Your task to perform on an android device: Is it going to rain tomorrow? Image 0: 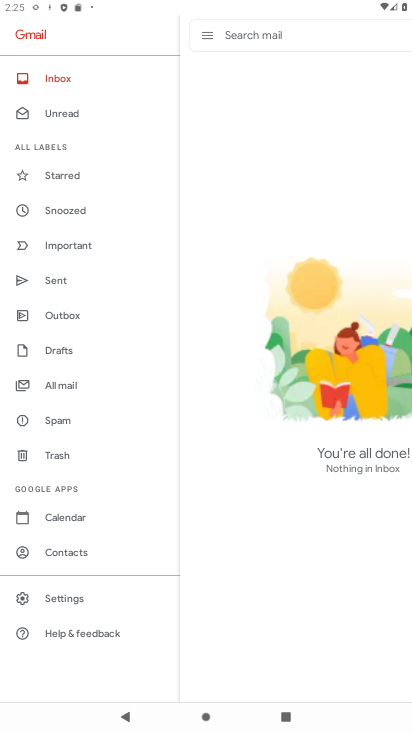
Step 0: press home button
Your task to perform on an android device: Is it going to rain tomorrow? Image 1: 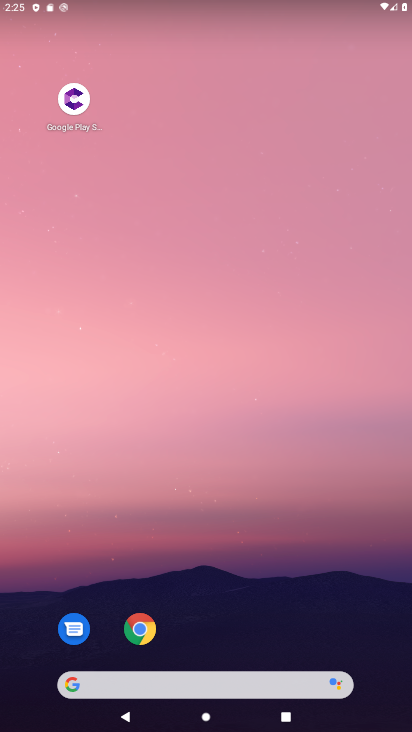
Step 1: drag from (263, 664) to (276, 116)
Your task to perform on an android device: Is it going to rain tomorrow? Image 2: 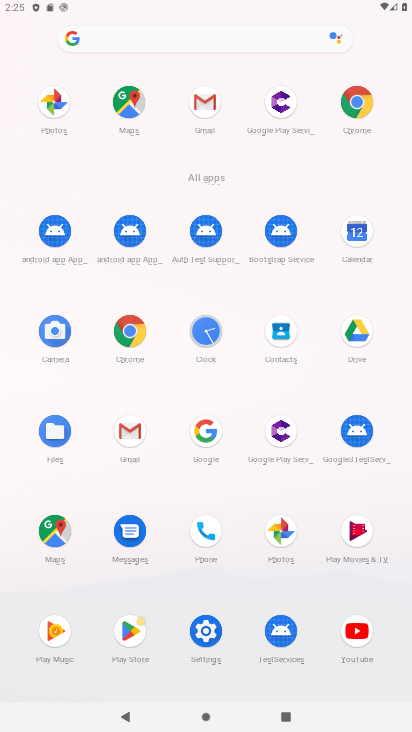
Step 2: click (132, 333)
Your task to perform on an android device: Is it going to rain tomorrow? Image 3: 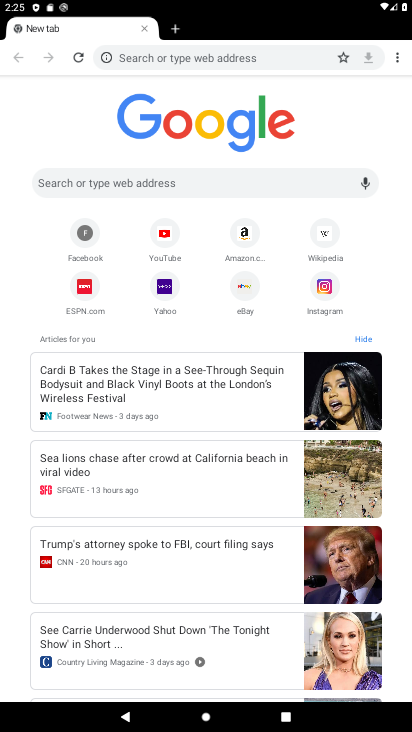
Step 3: click (197, 44)
Your task to perform on an android device: Is it going to rain tomorrow? Image 4: 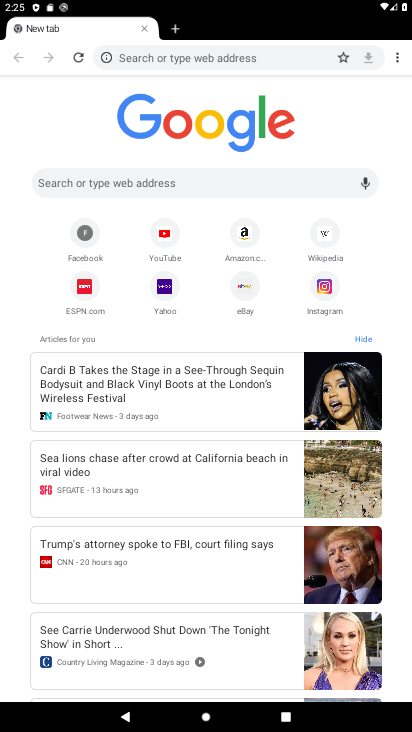
Step 4: click (269, 61)
Your task to perform on an android device: Is it going to rain tomorrow? Image 5: 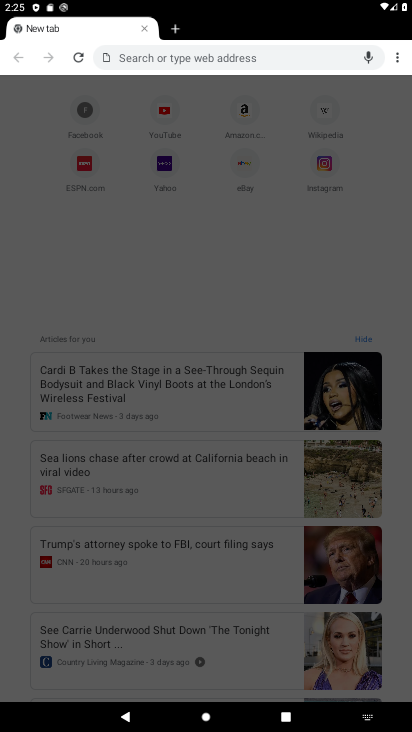
Step 5: type "going to rain tomorrow"
Your task to perform on an android device: Is it going to rain tomorrow? Image 6: 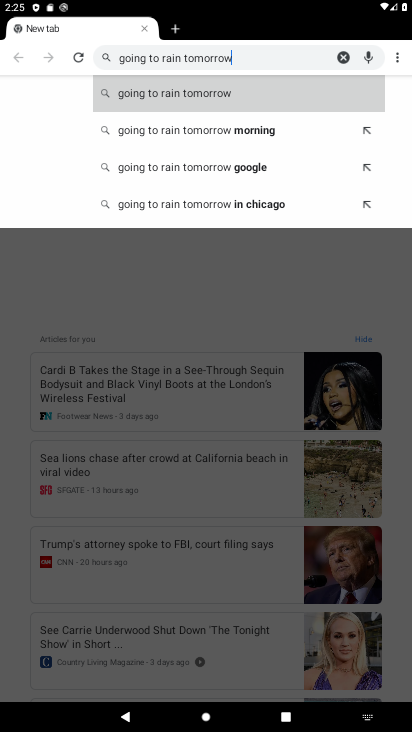
Step 6: click (242, 107)
Your task to perform on an android device: Is it going to rain tomorrow? Image 7: 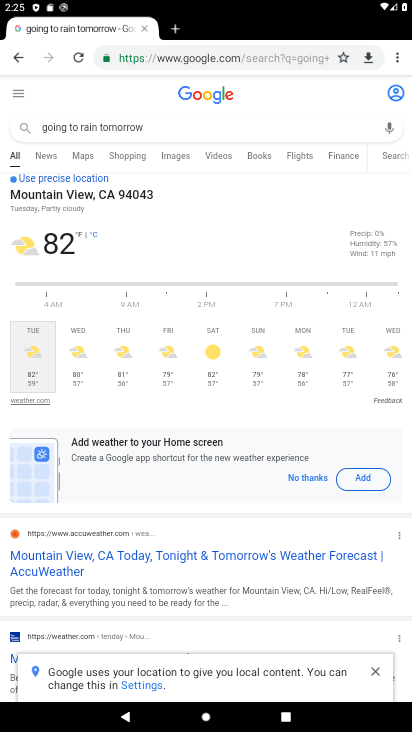
Step 7: task complete